Your task to perform on an android device: Open the Play Movies app and select the watchlist tab. Image 0: 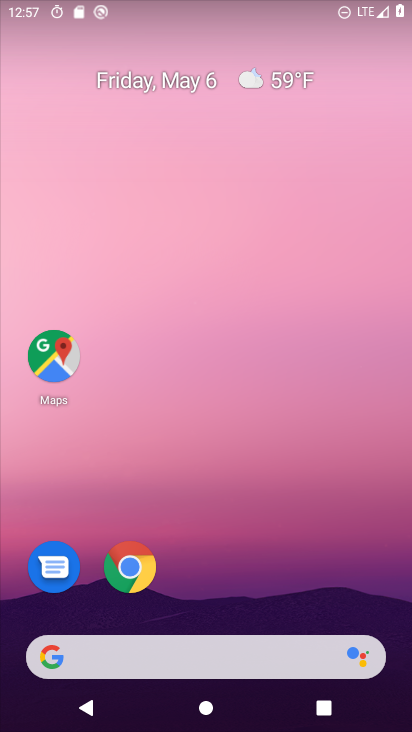
Step 0: drag from (283, 596) to (295, 12)
Your task to perform on an android device: Open the Play Movies app and select the watchlist tab. Image 1: 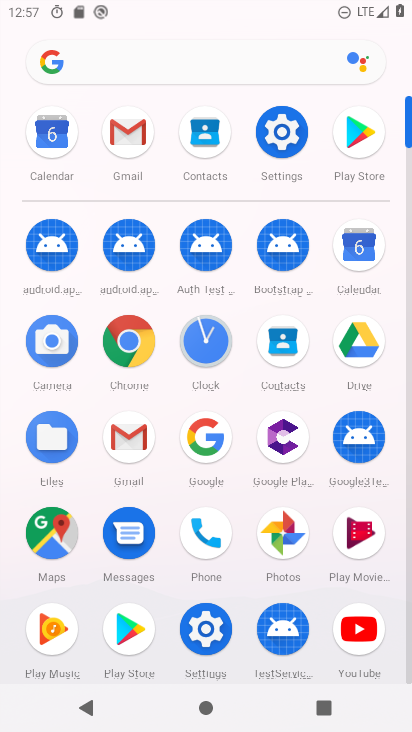
Step 1: click (351, 543)
Your task to perform on an android device: Open the Play Movies app and select the watchlist tab. Image 2: 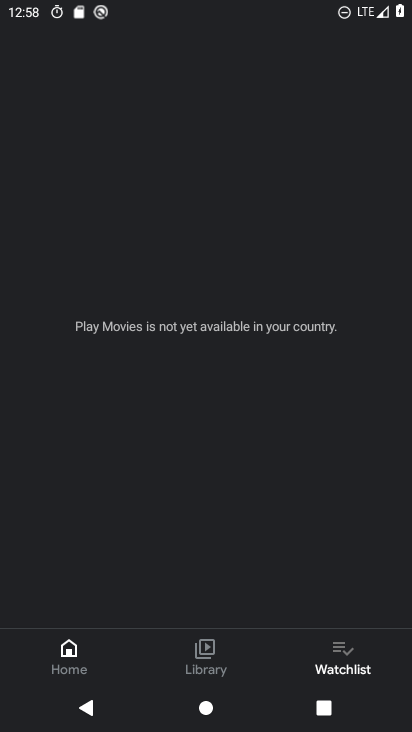
Step 2: click (335, 652)
Your task to perform on an android device: Open the Play Movies app and select the watchlist tab. Image 3: 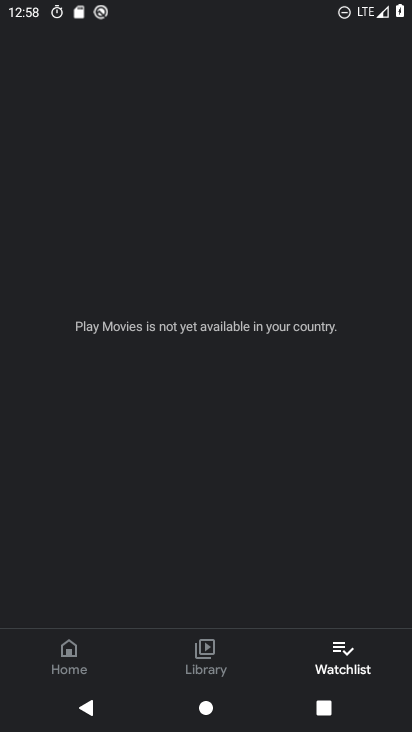
Step 3: task complete